Your task to perform on an android device: Toggle the flashlight Image 0: 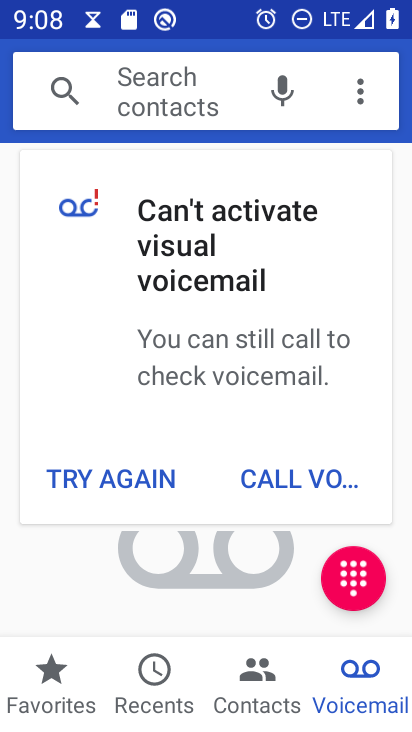
Step 0: press home button
Your task to perform on an android device: Toggle the flashlight Image 1: 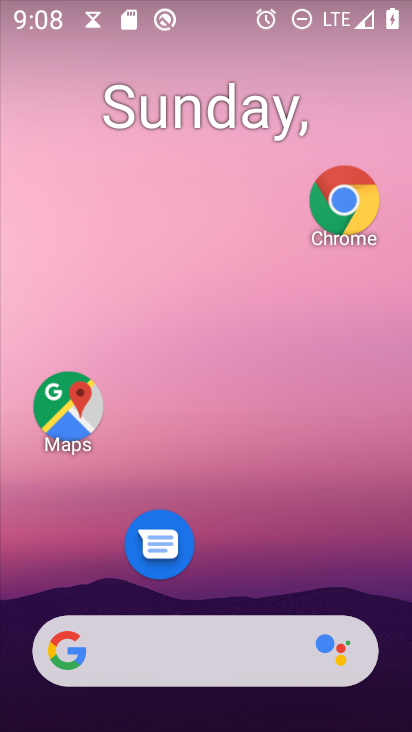
Step 1: drag from (246, 562) to (212, 115)
Your task to perform on an android device: Toggle the flashlight Image 2: 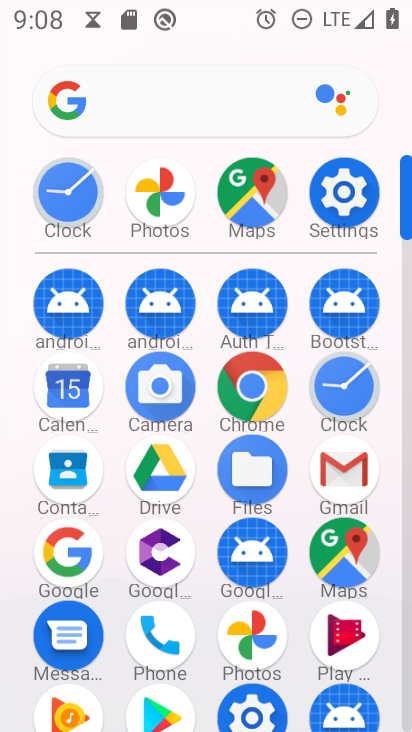
Step 2: click (355, 193)
Your task to perform on an android device: Toggle the flashlight Image 3: 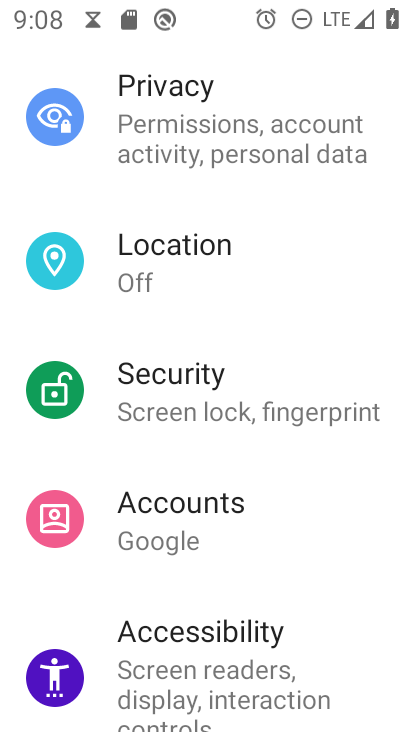
Step 3: task complete